Your task to perform on an android device: See recent photos Image 0: 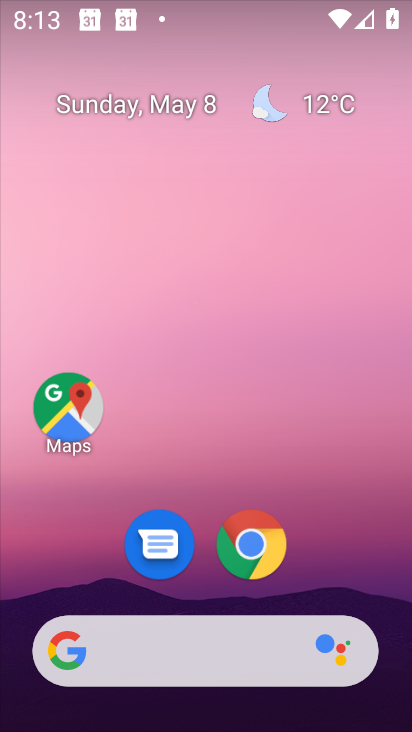
Step 0: drag from (320, 539) to (269, 135)
Your task to perform on an android device: See recent photos Image 1: 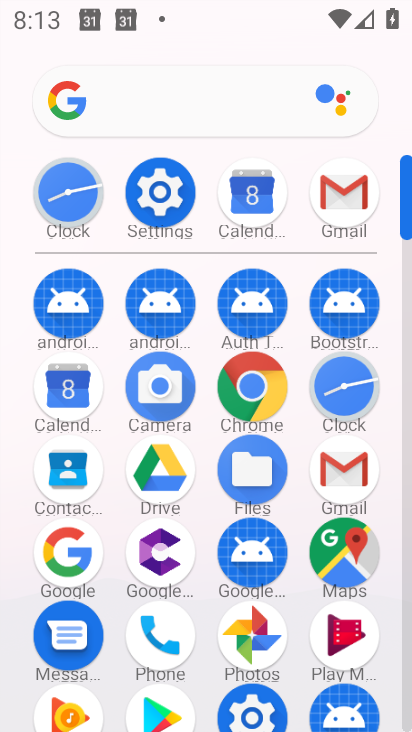
Step 1: click (258, 626)
Your task to perform on an android device: See recent photos Image 2: 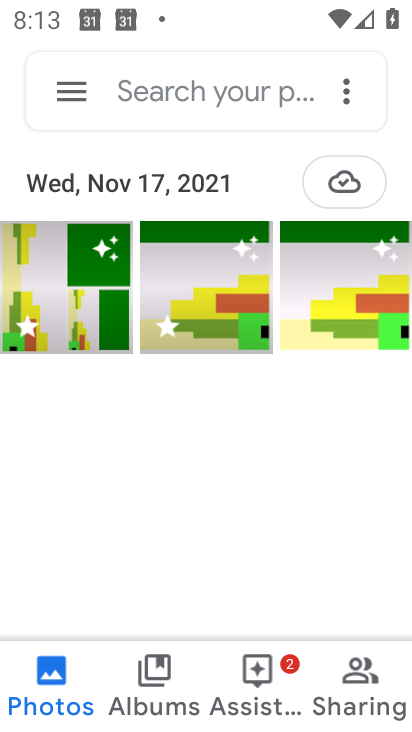
Step 2: task complete